Your task to perform on an android device: empty trash in google photos Image 0: 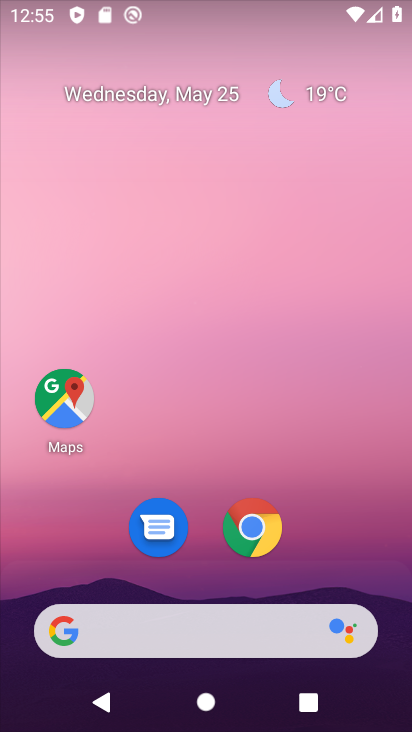
Step 0: drag from (380, 592) to (372, 142)
Your task to perform on an android device: empty trash in google photos Image 1: 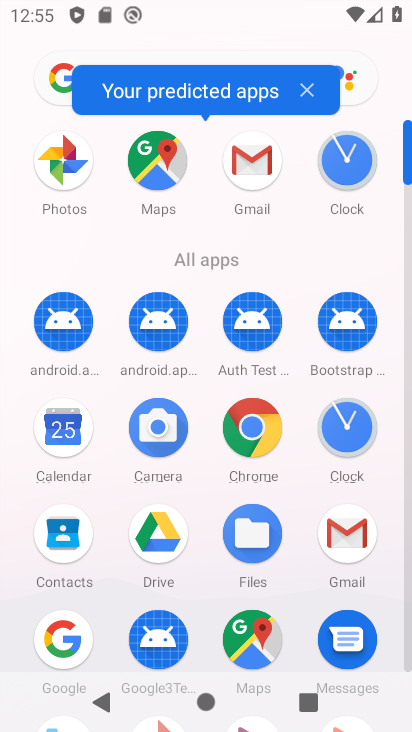
Step 1: drag from (373, 589) to (379, 265)
Your task to perform on an android device: empty trash in google photos Image 2: 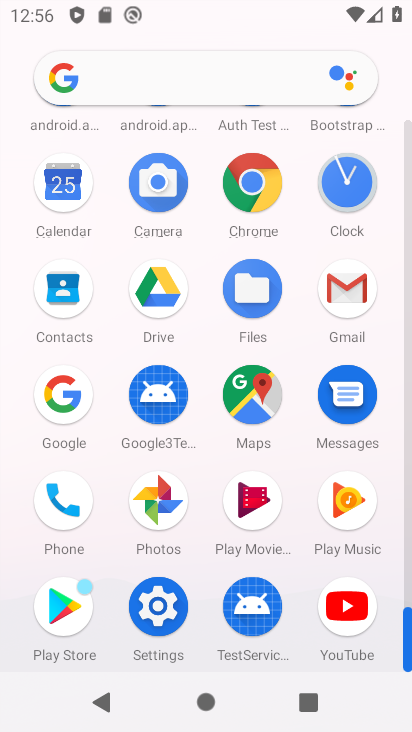
Step 2: click (152, 518)
Your task to perform on an android device: empty trash in google photos Image 3: 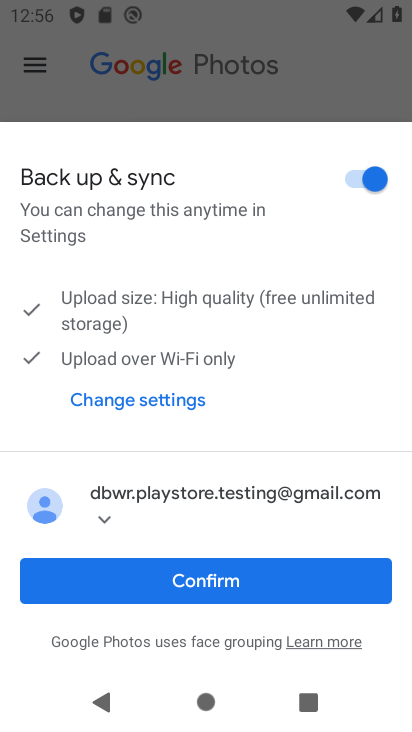
Step 3: click (269, 579)
Your task to perform on an android device: empty trash in google photos Image 4: 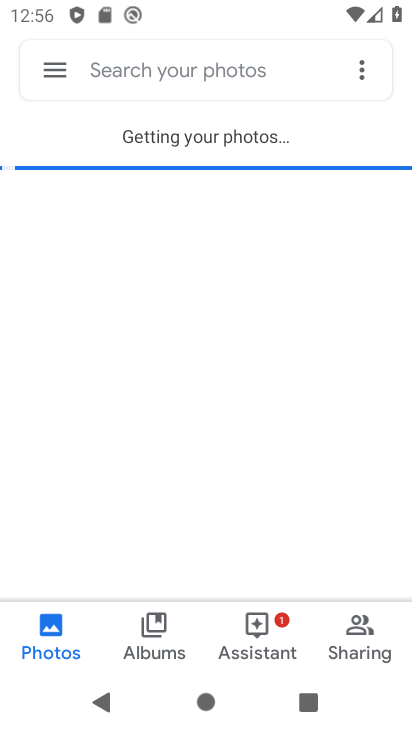
Step 4: click (56, 85)
Your task to perform on an android device: empty trash in google photos Image 5: 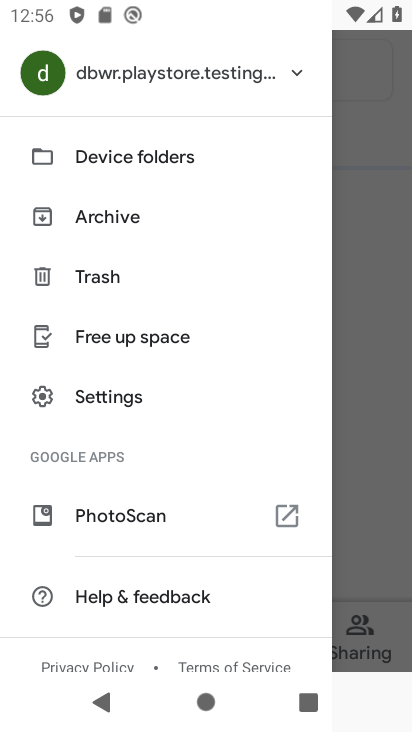
Step 5: click (107, 277)
Your task to perform on an android device: empty trash in google photos Image 6: 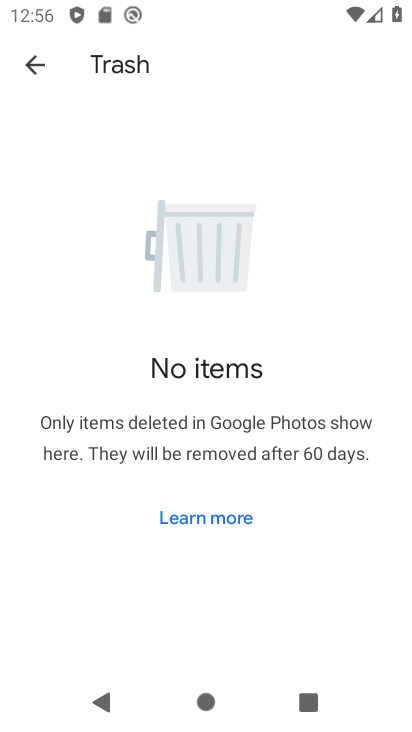
Step 6: task complete